Your task to perform on an android device: change the clock display to analog Image 0: 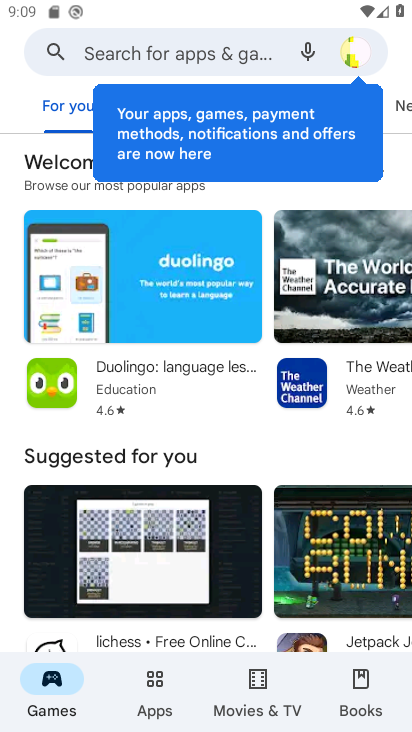
Step 0: press home button
Your task to perform on an android device: change the clock display to analog Image 1: 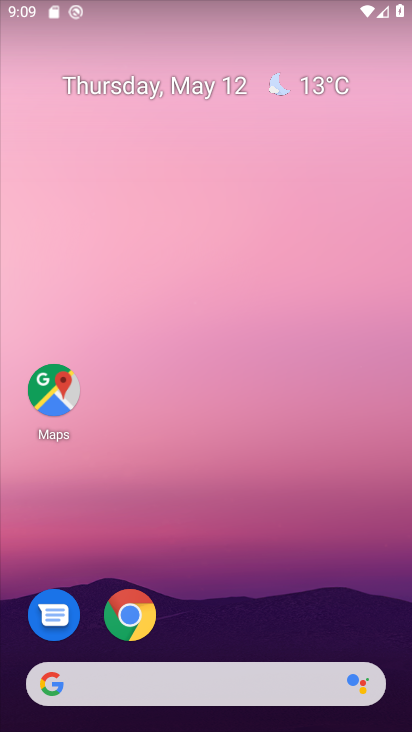
Step 1: drag from (282, 503) to (150, 16)
Your task to perform on an android device: change the clock display to analog Image 2: 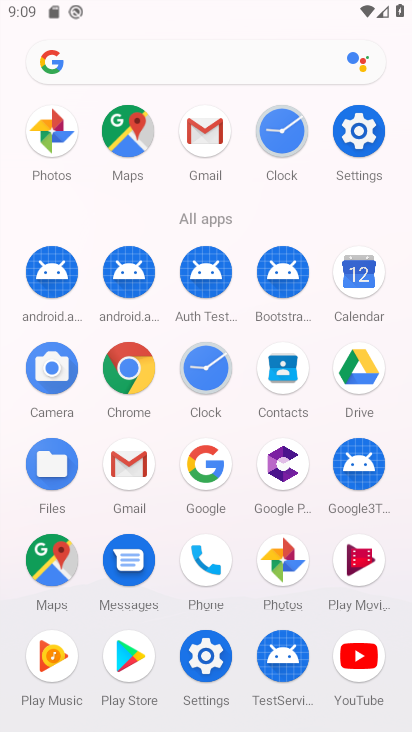
Step 2: click (281, 133)
Your task to perform on an android device: change the clock display to analog Image 3: 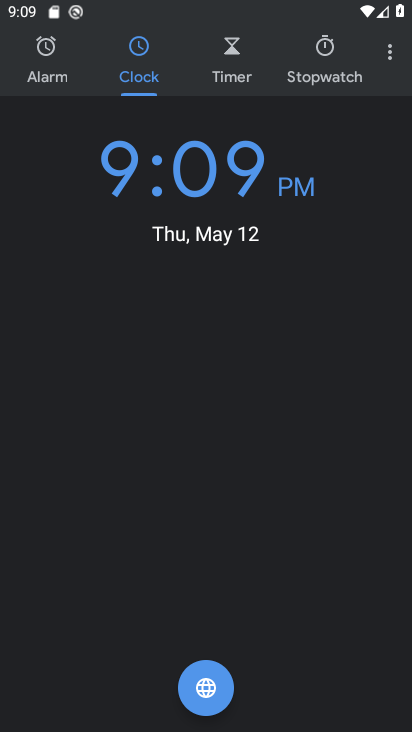
Step 3: click (387, 55)
Your task to perform on an android device: change the clock display to analog Image 4: 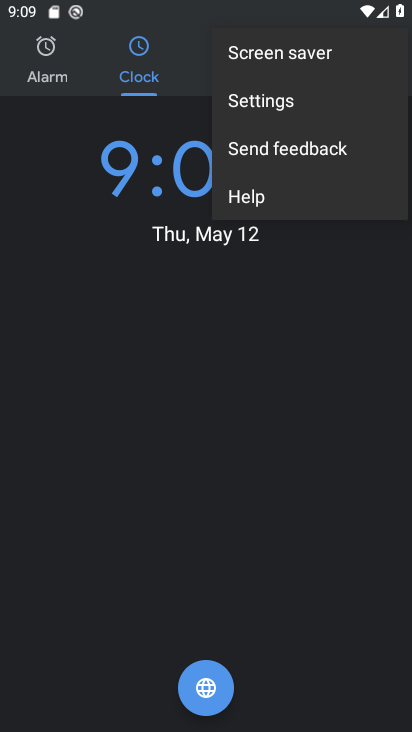
Step 4: click (285, 103)
Your task to perform on an android device: change the clock display to analog Image 5: 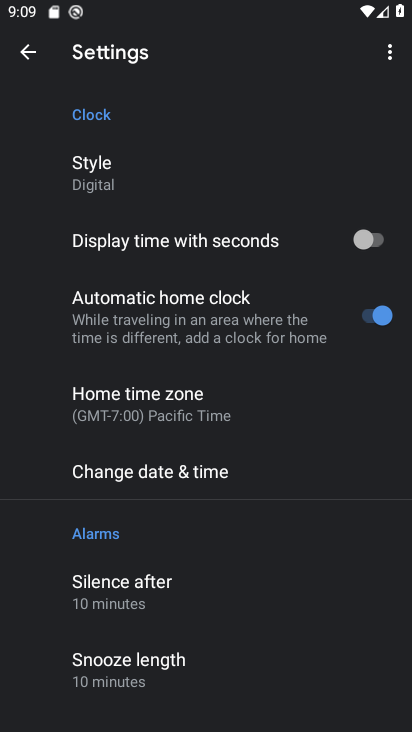
Step 5: click (87, 174)
Your task to perform on an android device: change the clock display to analog Image 6: 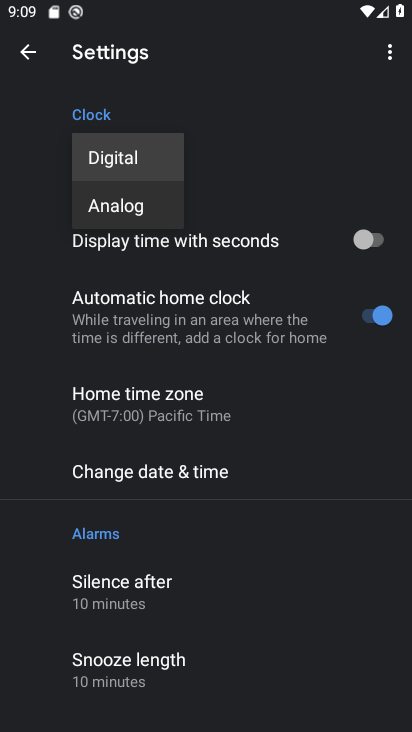
Step 6: click (121, 207)
Your task to perform on an android device: change the clock display to analog Image 7: 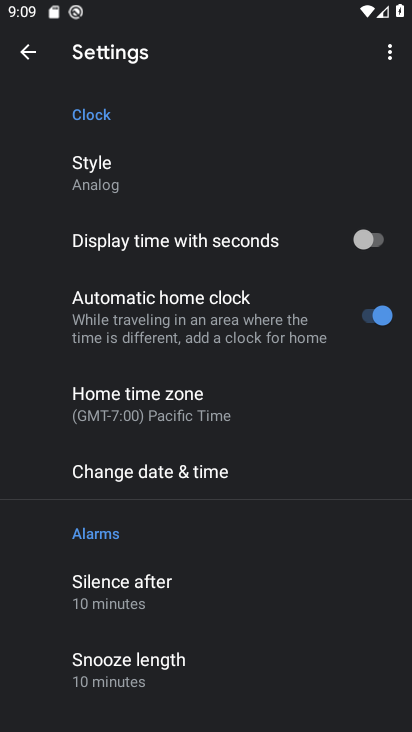
Step 7: task complete